Your task to perform on an android device: Open the Play Movies app and select the watchlist tab. Image 0: 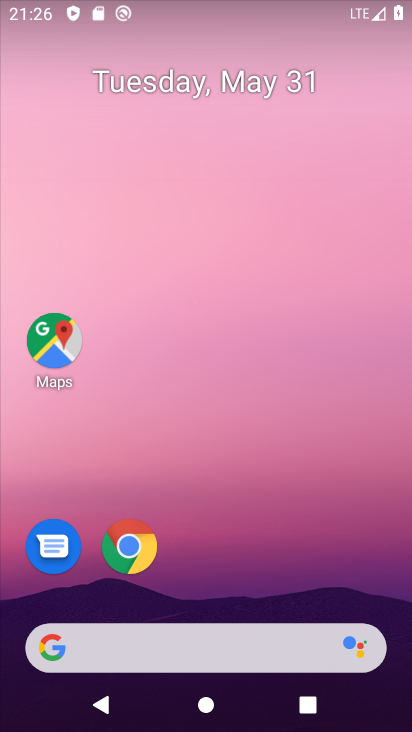
Step 0: drag from (395, 696) to (313, 101)
Your task to perform on an android device: Open the Play Movies app and select the watchlist tab. Image 1: 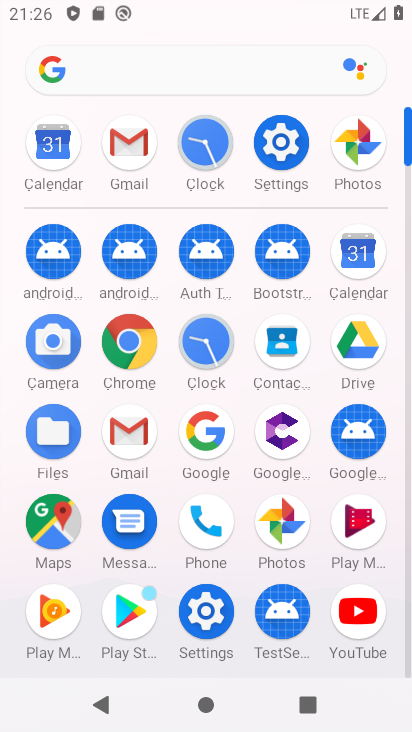
Step 1: click (354, 521)
Your task to perform on an android device: Open the Play Movies app and select the watchlist tab. Image 2: 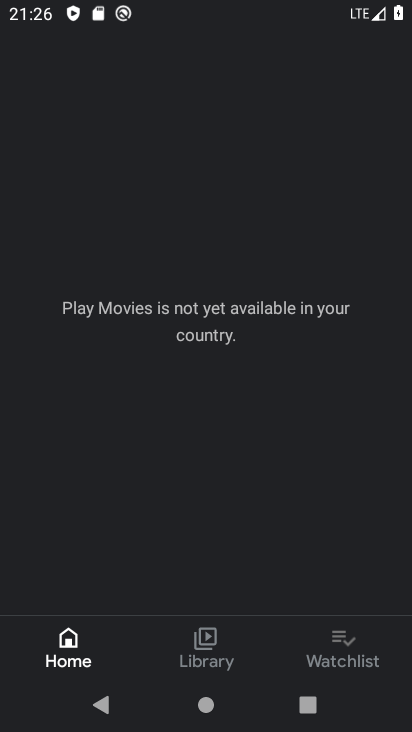
Step 2: click (337, 645)
Your task to perform on an android device: Open the Play Movies app and select the watchlist tab. Image 3: 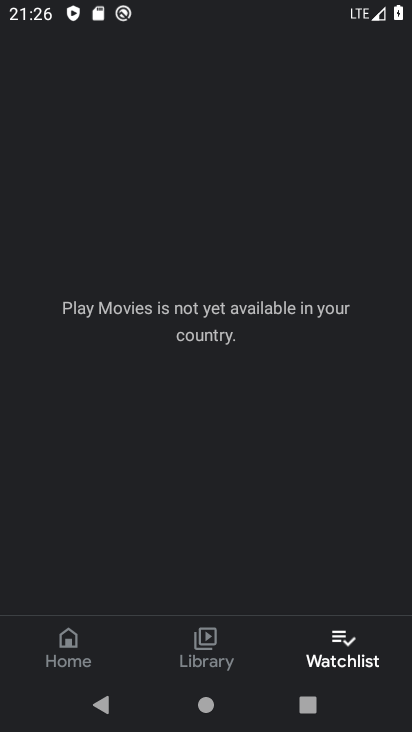
Step 3: task complete